Your task to perform on an android device: Open Wikipedia Image 0: 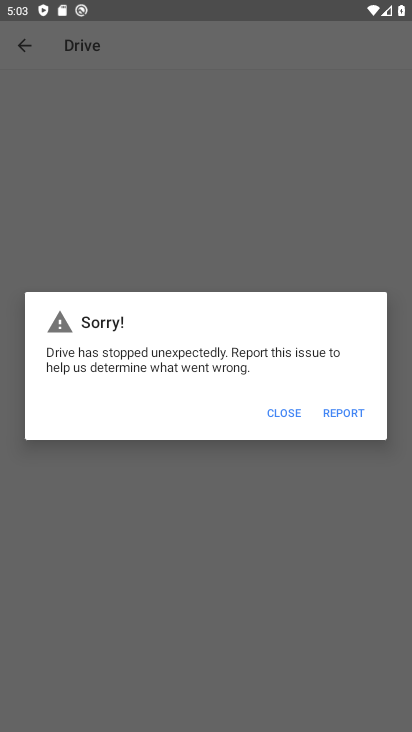
Step 0: click (290, 414)
Your task to perform on an android device: Open Wikipedia Image 1: 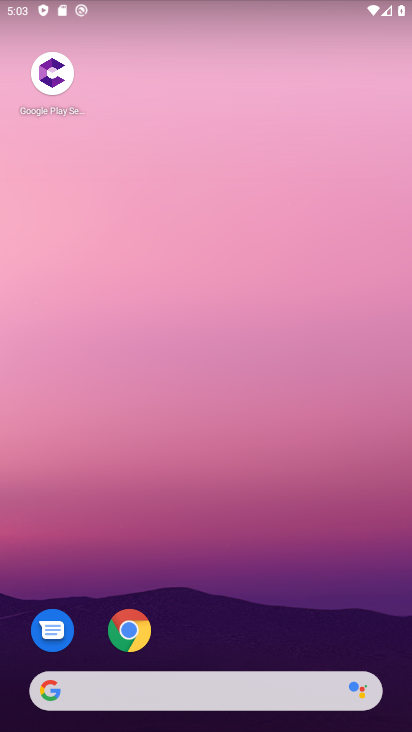
Step 1: press home button
Your task to perform on an android device: Open Wikipedia Image 2: 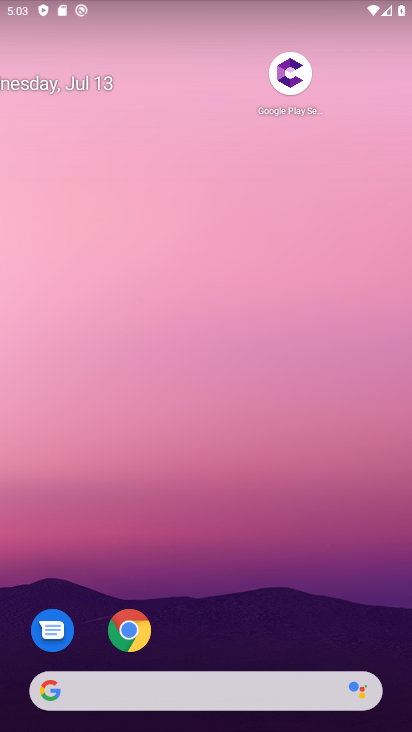
Step 2: click (183, 192)
Your task to perform on an android device: Open Wikipedia Image 3: 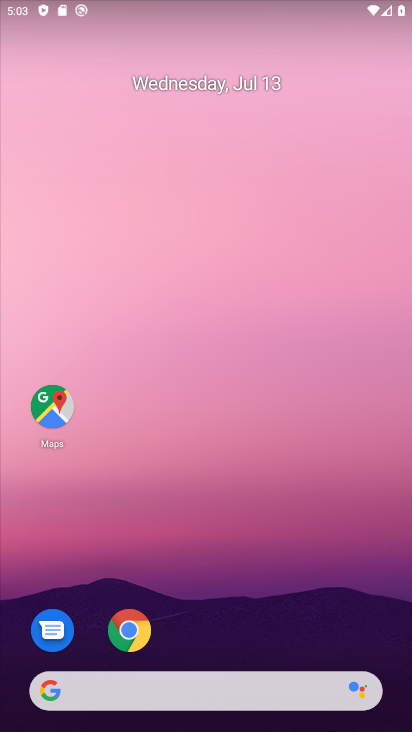
Step 3: click (135, 630)
Your task to perform on an android device: Open Wikipedia Image 4: 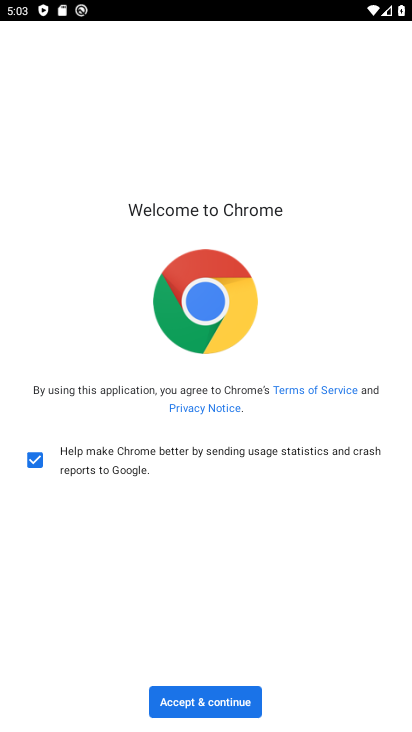
Step 4: click (228, 703)
Your task to perform on an android device: Open Wikipedia Image 5: 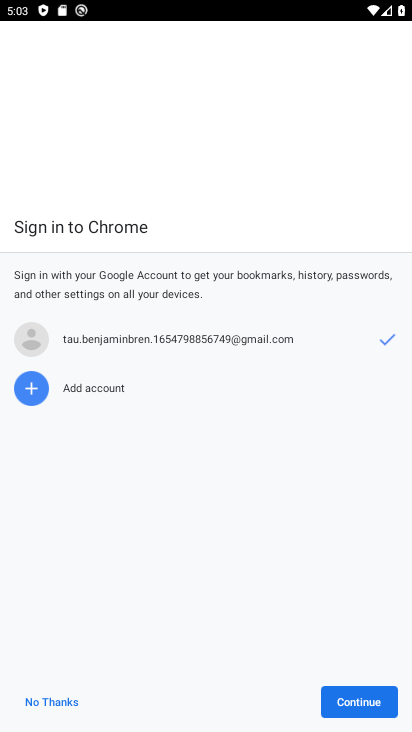
Step 5: click (351, 712)
Your task to perform on an android device: Open Wikipedia Image 6: 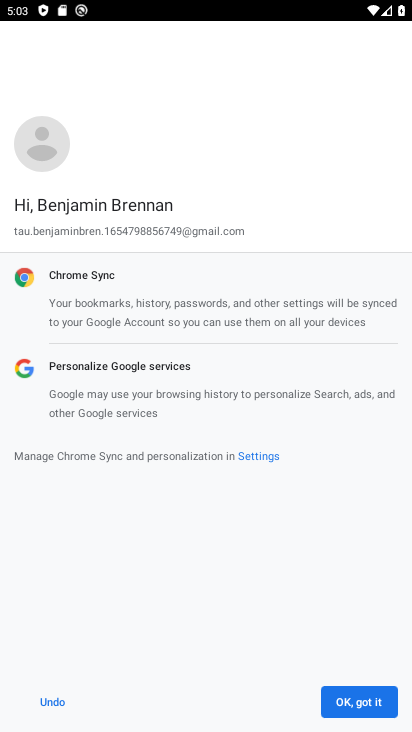
Step 6: click (344, 710)
Your task to perform on an android device: Open Wikipedia Image 7: 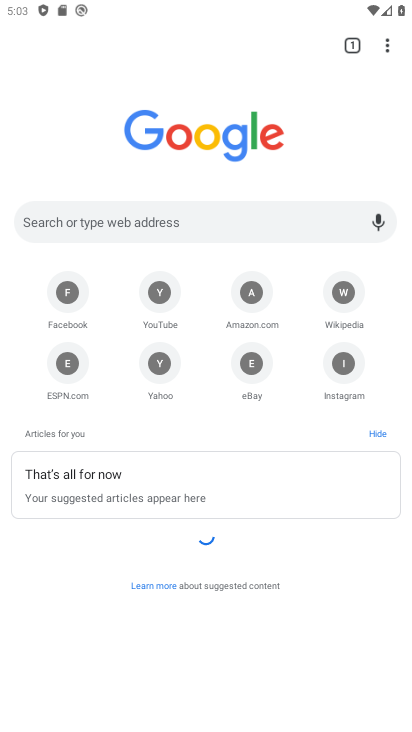
Step 7: click (174, 236)
Your task to perform on an android device: Open Wikipedia Image 8: 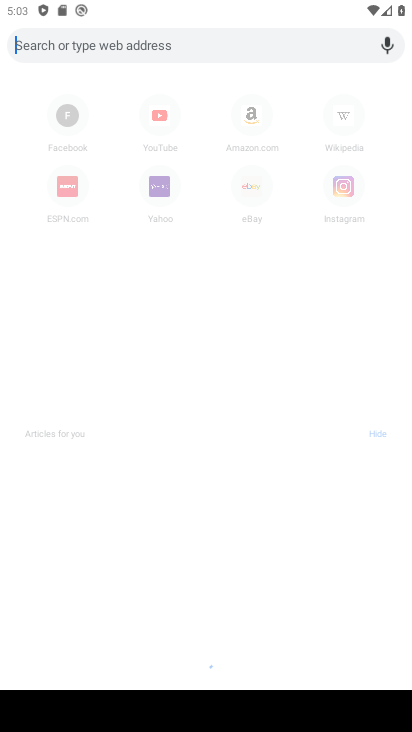
Step 8: type "Yahoo.com"
Your task to perform on an android device: Open Wikipedia Image 9: 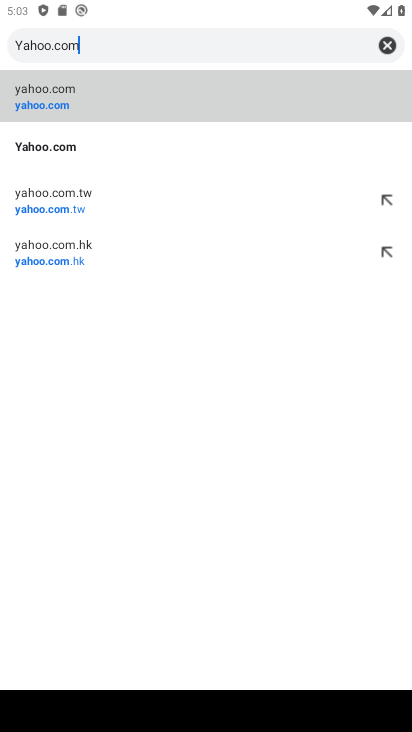
Step 9: type ""
Your task to perform on an android device: Open Wikipedia Image 10: 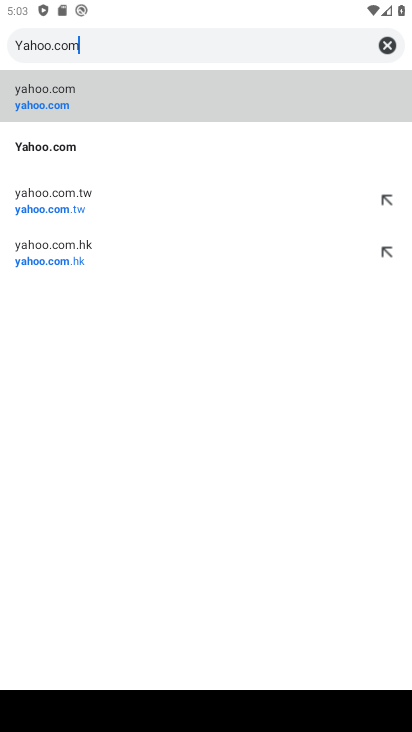
Step 10: click (41, 82)
Your task to perform on an android device: Open Wikipedia Image 11: 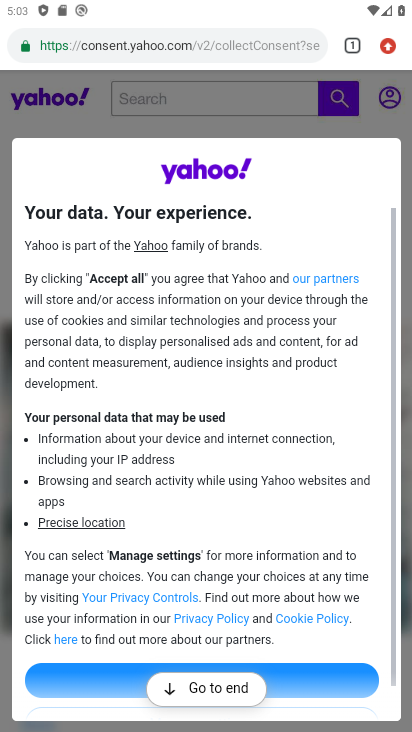
Step 11: drag from (219, 683) to (217, 318)
Your task to perform on an android device: Open Wikipedia Image 12: 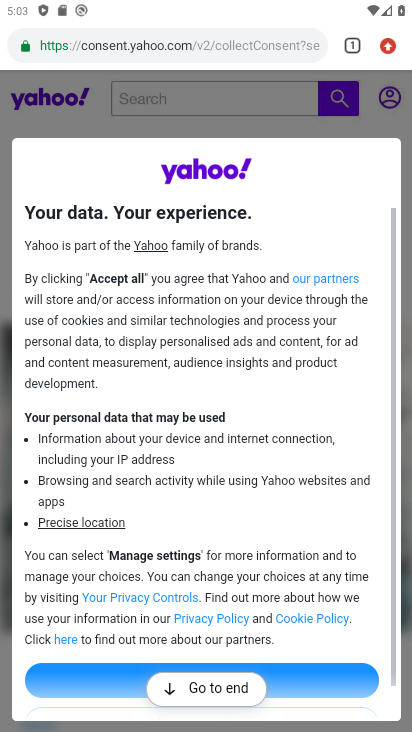
Step 12: drag from (190, 586) to (199, 253)
Your task to perform on an android device: Open Wikipedia Image 13: 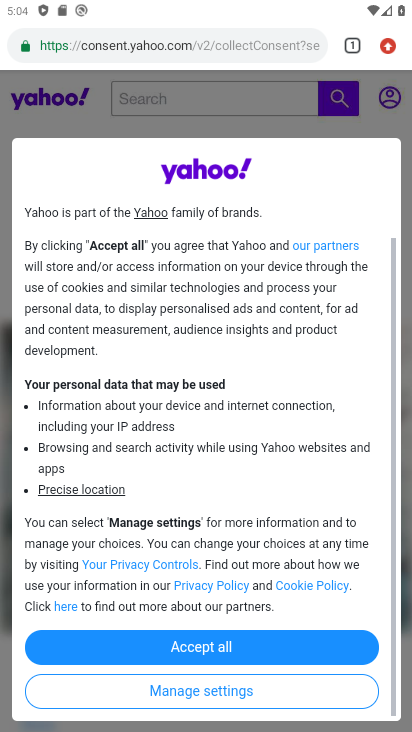
Step 13: click (225, 43)
Your task to perform on an android device: Open Wikipedia Image 14: 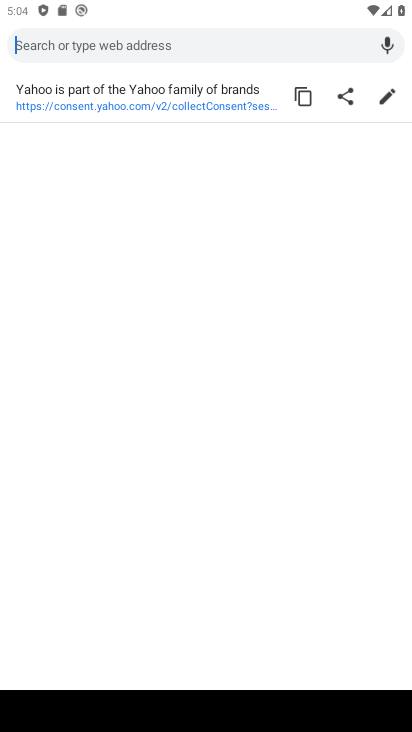
Step 14: type "Wikipedia"
Your task to perform on an android device: Open Wikipedia Image 15: 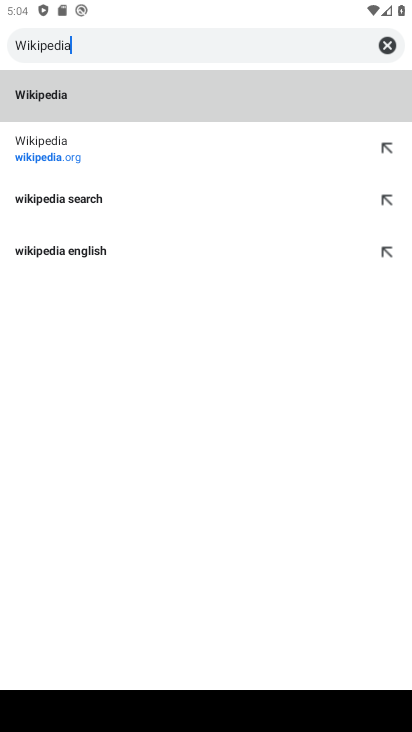
Step 15: click (121, 147)
Your task to perform on an android device: Open Wikipedia Image 16: 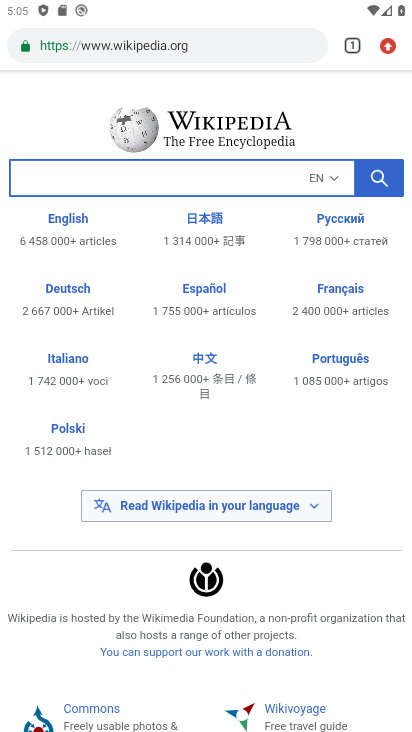
Step 16: task complete